Your task to perform on an android device: turn off data saver in the chrome app Image 0: 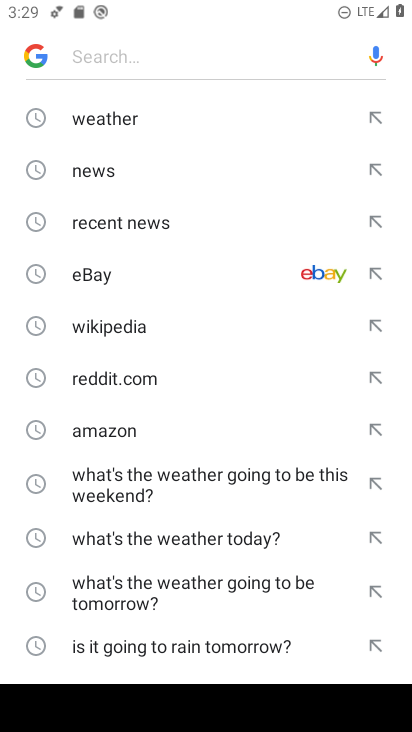
Step 0: drag from (314, 591) to (371, 573)
Your task to perform on an android device: turn off data saver in the chrome app Image 1: 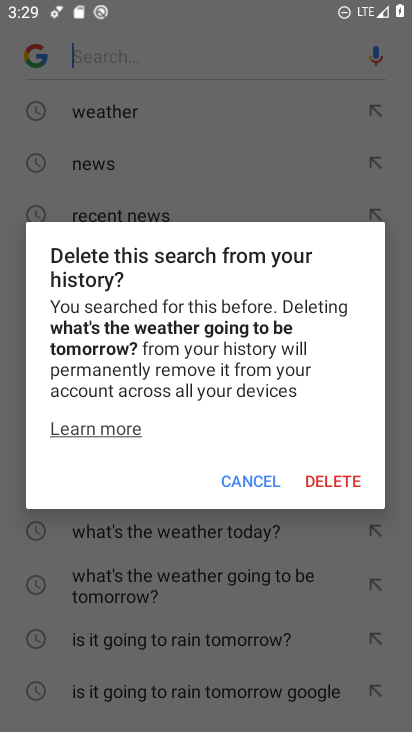
Step 1: press home button
Your task to perform on an android device: turn off data saver in the chrome app Image 2: 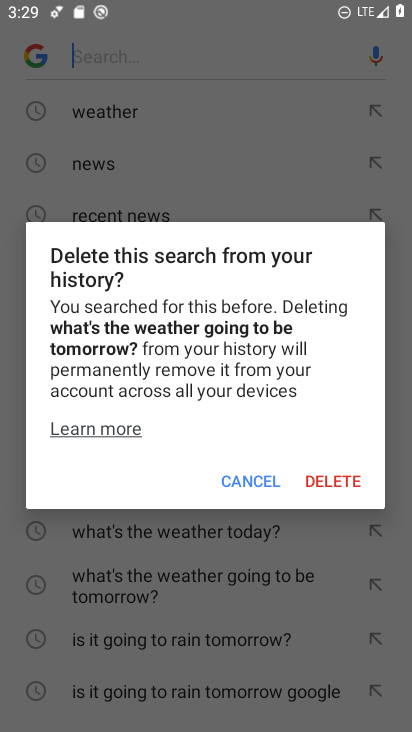
Step 2: drag from (371, 573) to (361, 501)
Your task to perform on an android device: turn off data saver in the chrome app Image 3: 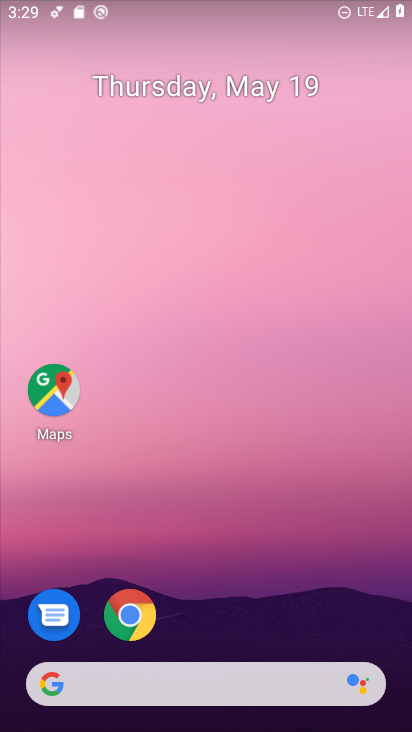
Step 3: click (124, 617)
Your task to perform on an android device: turn off data saver in the chrome app Image 4: 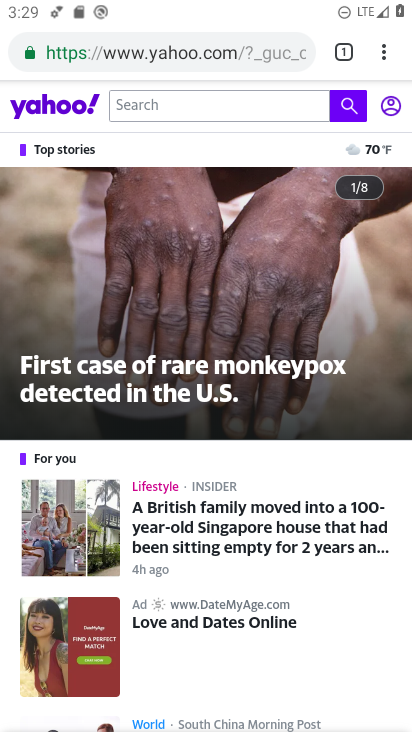
Step 4: click (393, 63)
Your task to perform on an android device: turn off data saver in the chrome app Image 5: 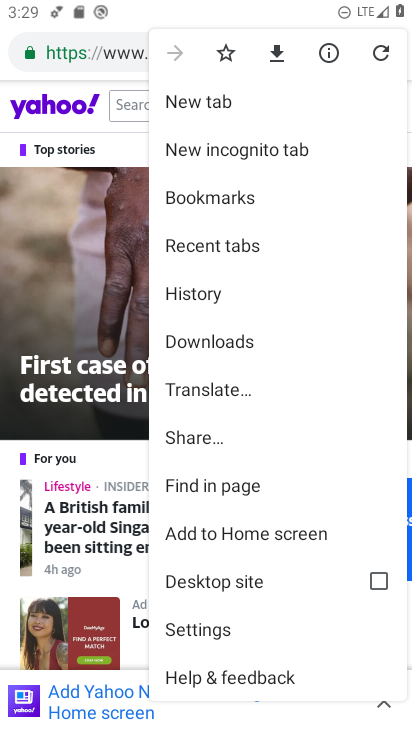
Step 5: click (277, 637)
Your task to perform on an android device: turn off data saver in the chrome app Image 6: 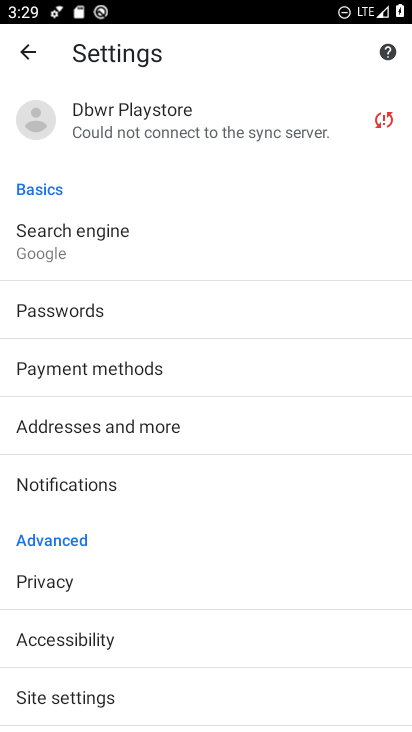
Step 6: drag from (262, 673) to (228, 249)
Your task to perform on an android device: turn off data saver in the chrome app Image 7: 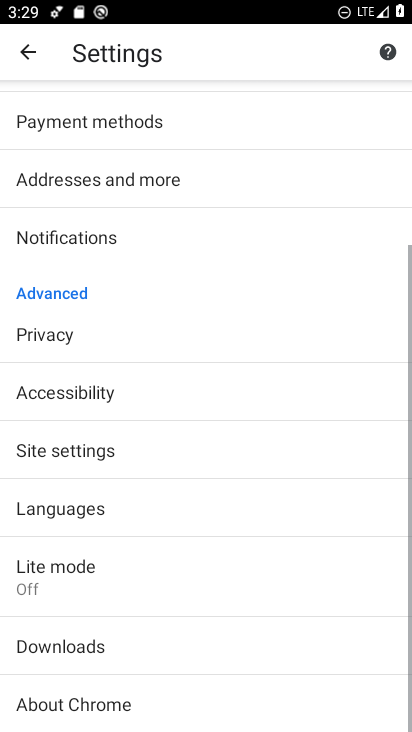
Step 7: click (216, 568)
Your task to perform on an android device: turn off data saver in the chrome app Image 8: 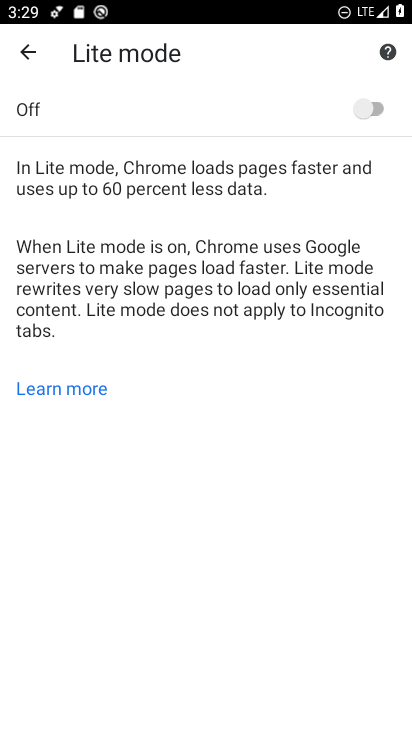
Step 8: task complete